Your task to perform on an android device: allow cookies in the chrome app Image 0: 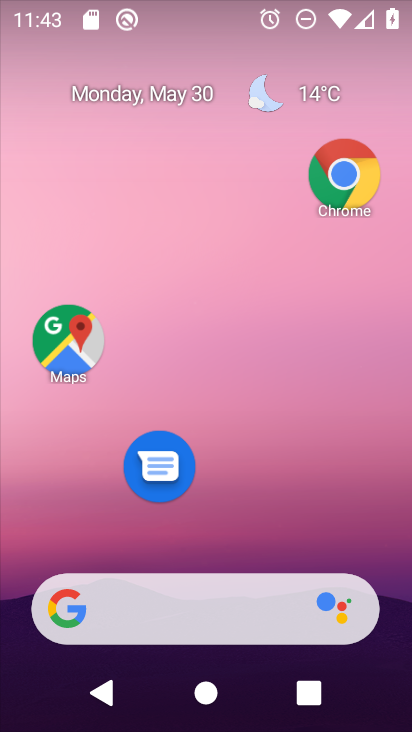
Step 0: click (342, 178)
Your task to perform on an android device: allow cookies in the chrome app Image 1: 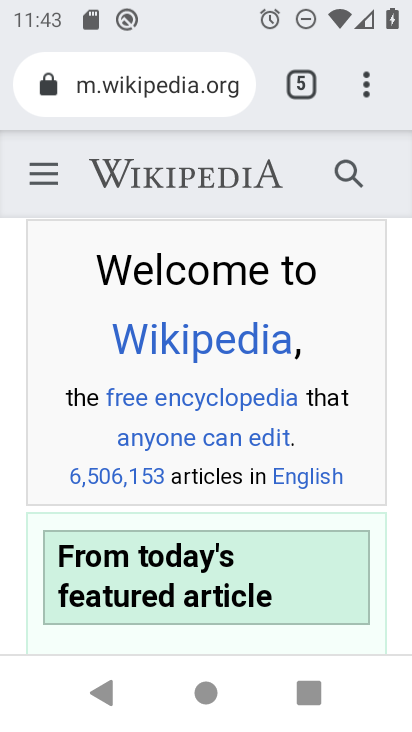
Step 1: click (365, 96)
Your task to perform on an android device: allow cookies in the chrome app Image 2: 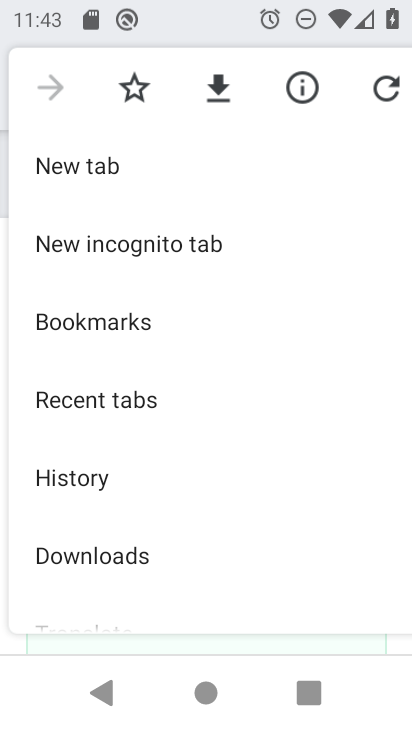
Step 2: drag from (136, 575) to (159, 234)
Your task to perform on an android device: allow cookies in the chrome app Image 3: 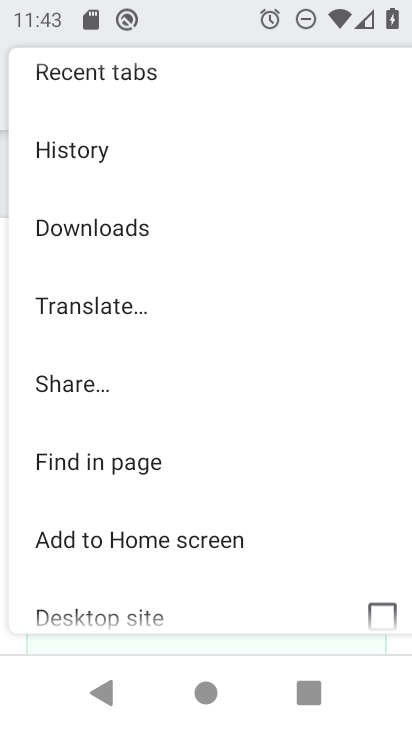
Step 3: drag from (153, 539) to (162, 132)
Your task to perform on an android device: allow cookies in the chrome app Image 4: 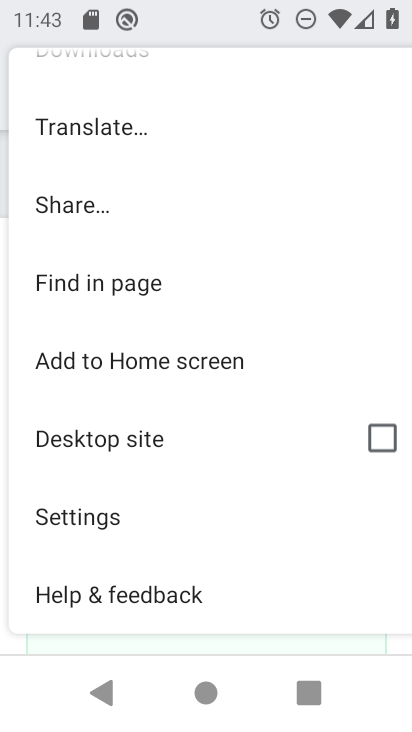
Step 4: click (89, 506)
Your task to perform on an android device: allow cookies in the chrome app Image 5: 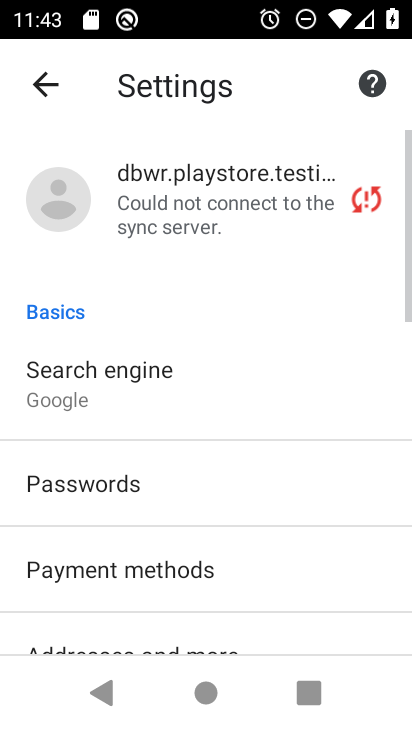
Step 5: drag from (168, 526) to (152, 299)
Your task to perform on an android device: allow cookies in the chrome app Image 6: 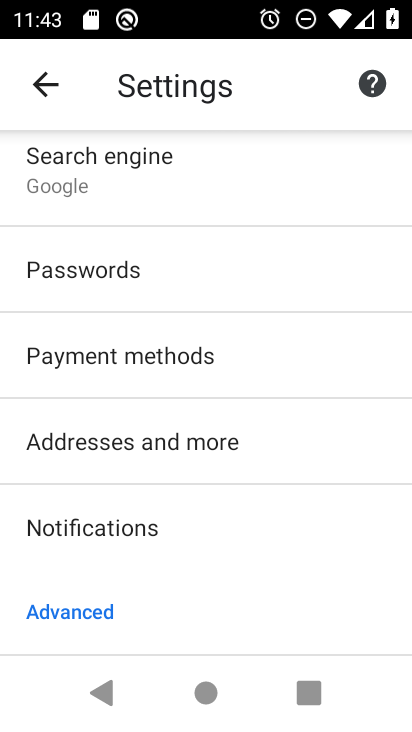
Step 6: drag from (106, 499) to (138, 231)
Your task to perform on an android device: allow cookies in the chrome app Image 7: 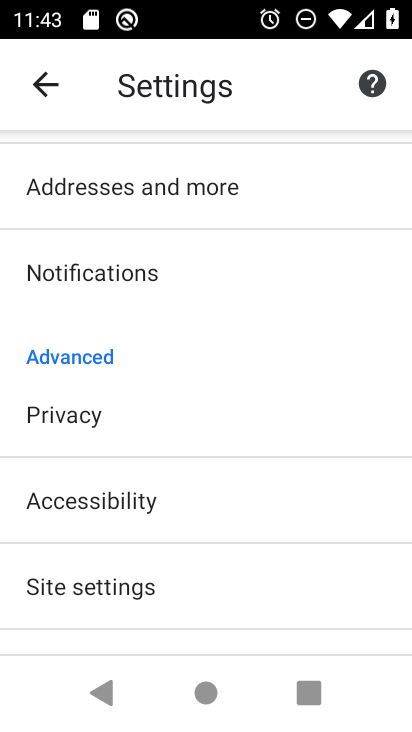
Step 7: click (131, 583)
Your task to perform on an android device: allow cookies in the chrome app Image 8: 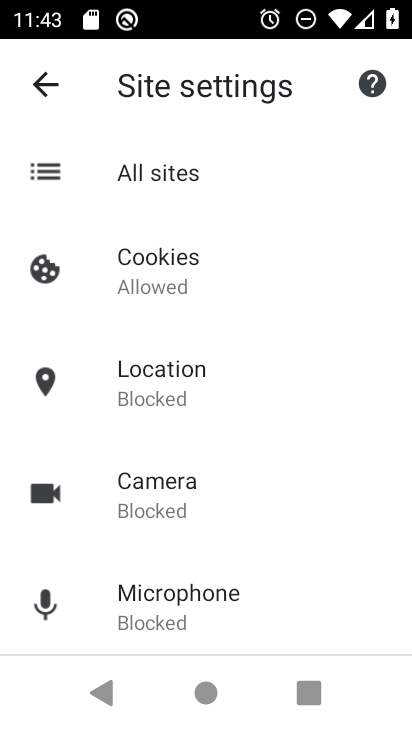
Step 8: click (230, 285)
Your task to perform on an android device: allow cookies in the chrome app Image 9: 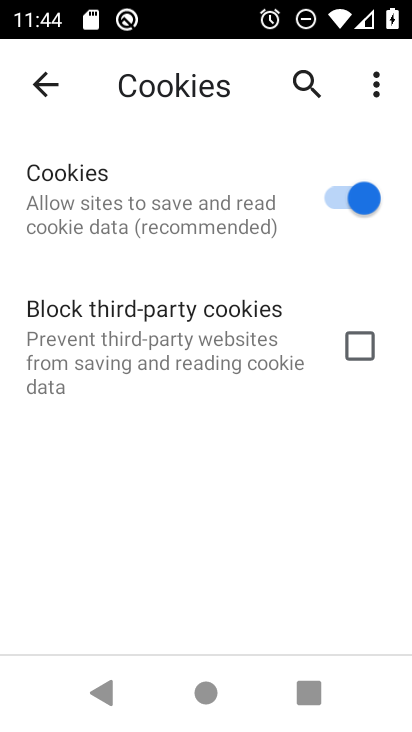
Step 9: task complete